Your task to perform on an android device: Open battery settings Image 0: 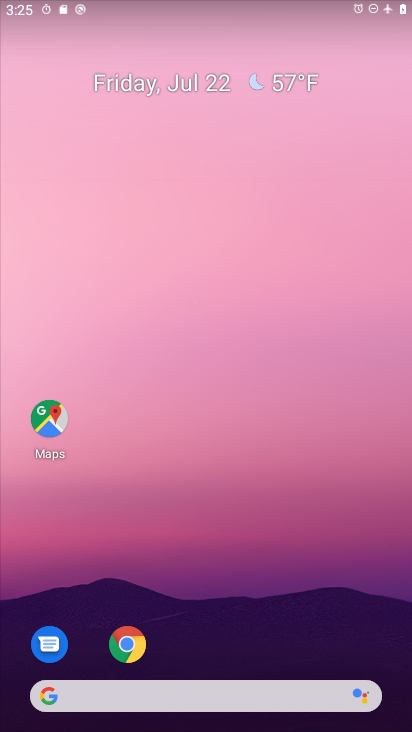
Step 0: drag from (214, 640) to (213, 129)
Your task to perform on an android device: Open battery settings Image 1: 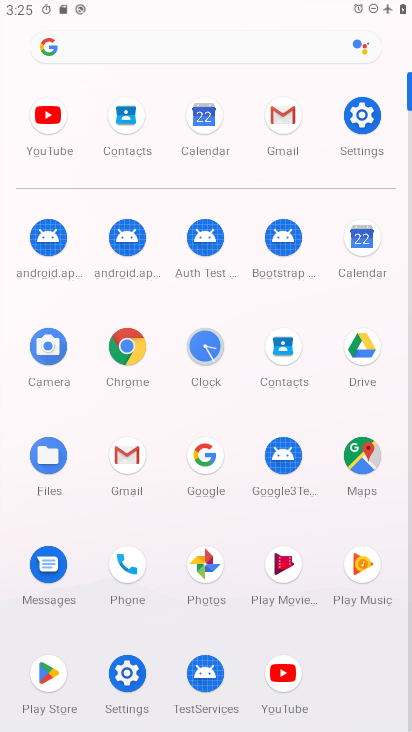
Step 1: click (331, 125)
Your task to perform on an android device: Open battery settings Image 2: 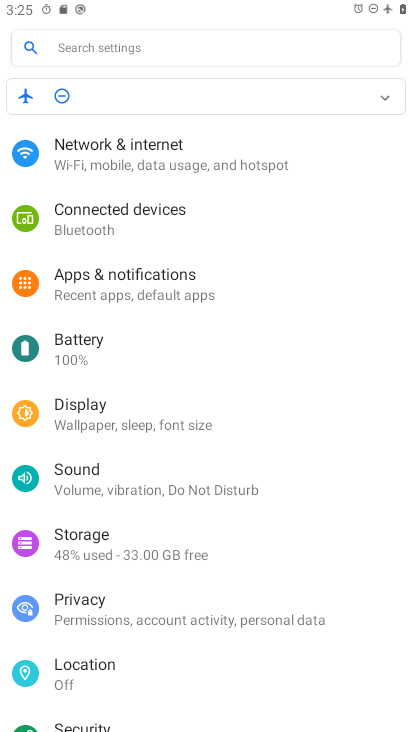
Step 2: click (192, 343)
Your task to perform on an android device: Open battery settings Image 3: 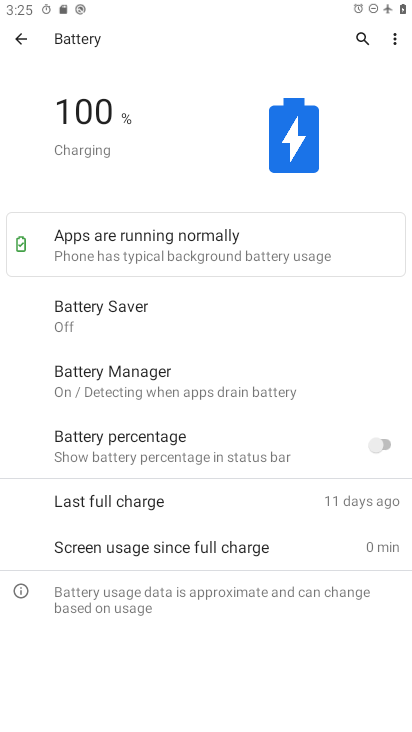
Step 3: task complete